Your task to perform on an android device: toggle notifications settings in the gmail app Image 0: 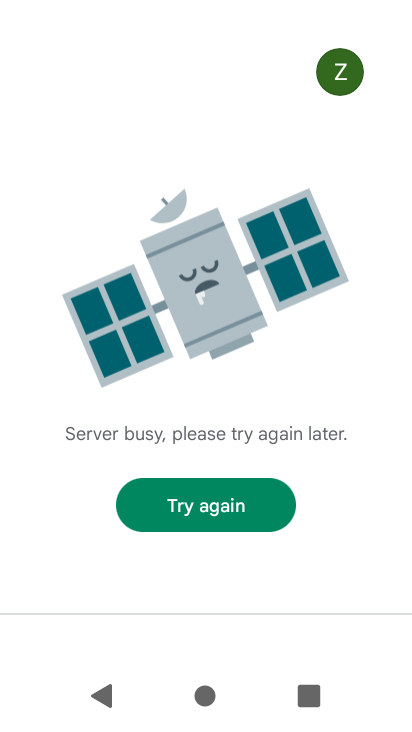
Step 0: task impossible